Your task to perform on an android device: turn off airplane mode Image 0: 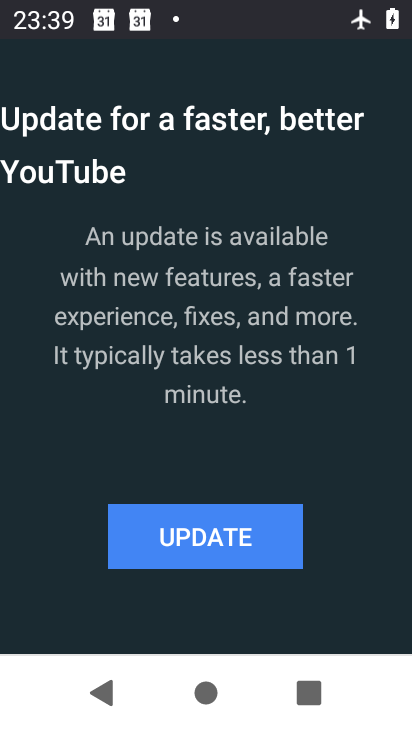
Step 0: press back button
Your task to perform on an android device: turn off airplane mode Image 1: 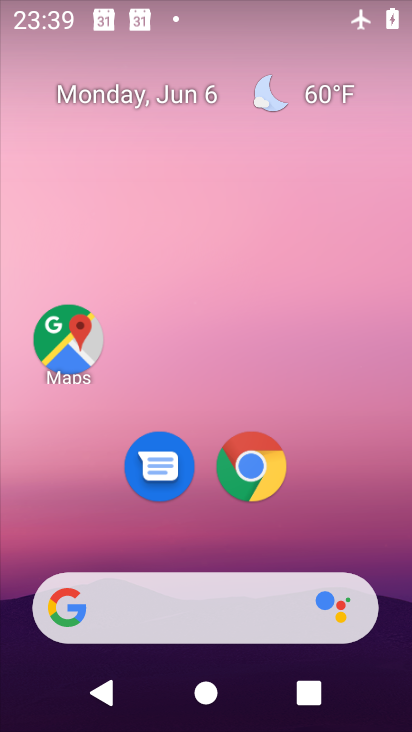
Step 1: drag from (348, 542) to (354, 0)
Your task to perform on an android device: turn off airplane mode Image 2: 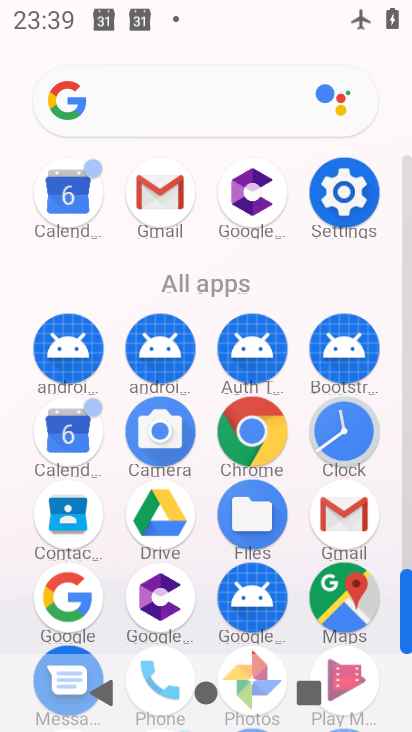
Step 2: click (347, 194)
Your task to perform on an android device: turn off airplane mode Image 3: 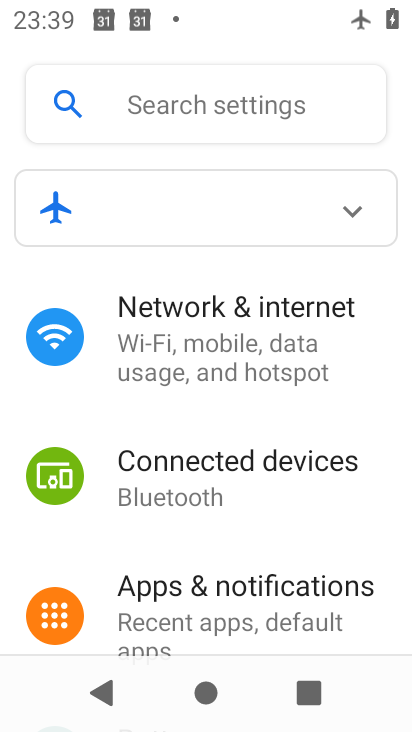
Step 3: click (207, 363)
Your task to perform on an android device: turn off airplane mode Image 4: 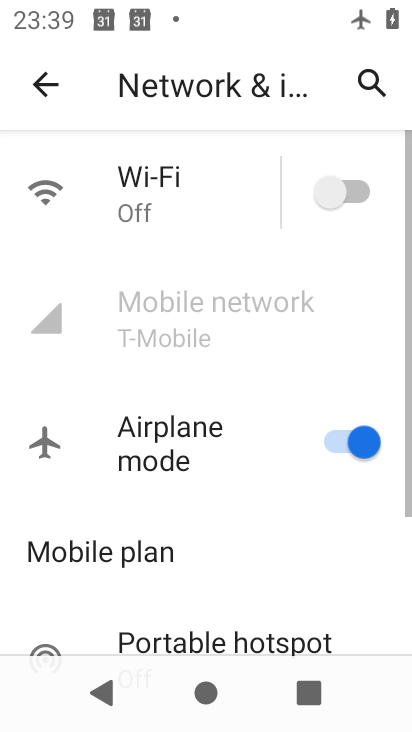
Step 4: click (345, 439)
Your task to perform on an android device: turn off airplane mode Image 5: 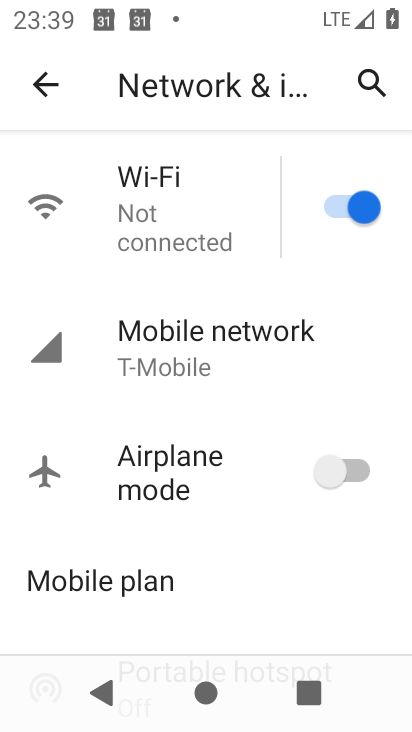
Step 5: task complete